Your task to perform on an android device: add a contact in the contacts app Image 0: 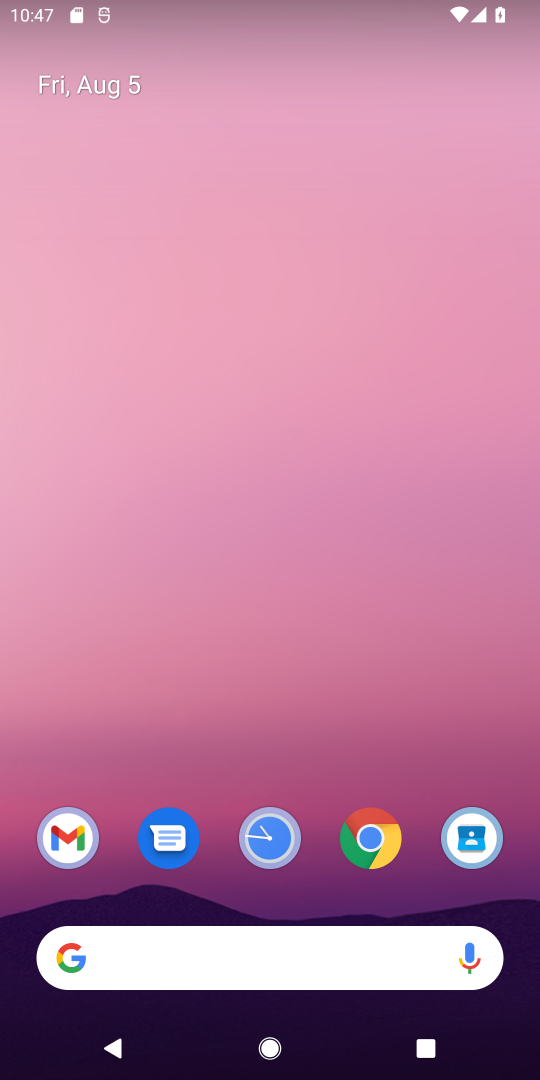
Step 0: drag from (232, 792) to (267, 208)
Your task to perform on an android device: add a contact in the contacts app Image 1: 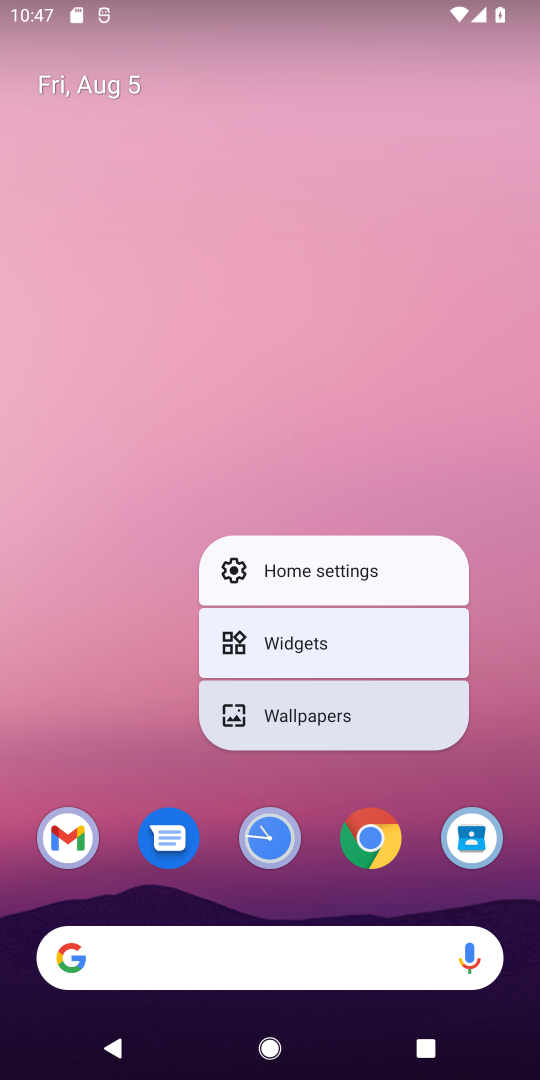
Step 1: click (70, 673)
Your task to perform on an android device: add a contact in the contacts app Image 2: 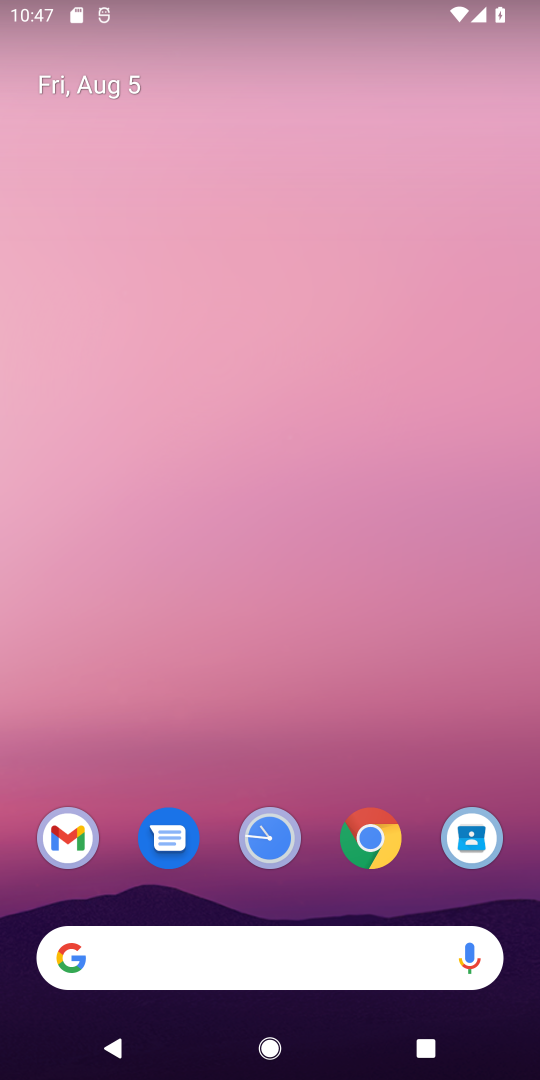
Step 2: drag from (120, 777) to (290, 222)
Your task to perform on an android device: add a contact in the contacts app Image 3: 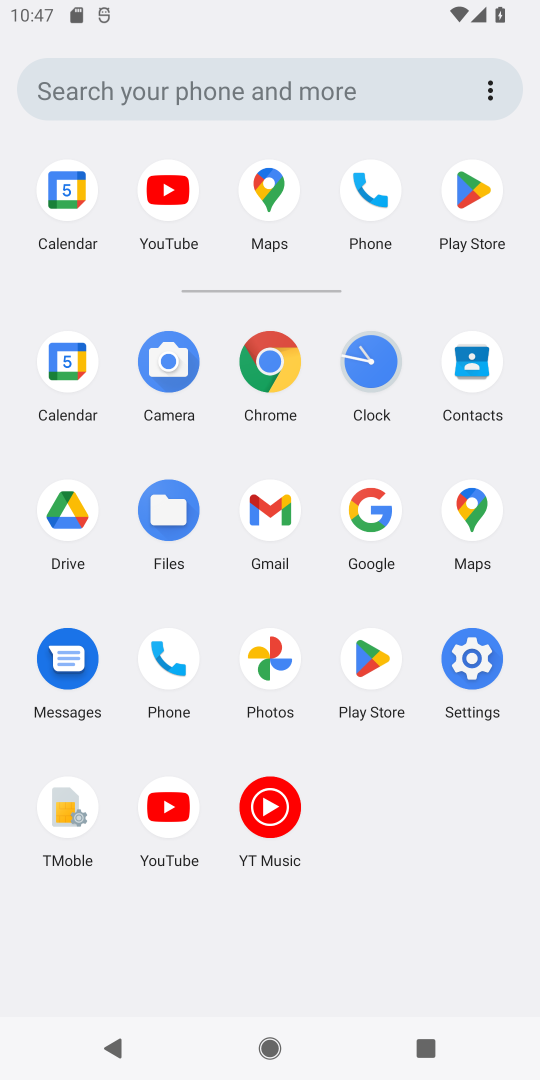
Step 3: click (382, 178)
Your task to perform on an android device: add a contact in the contacts app Image 4: 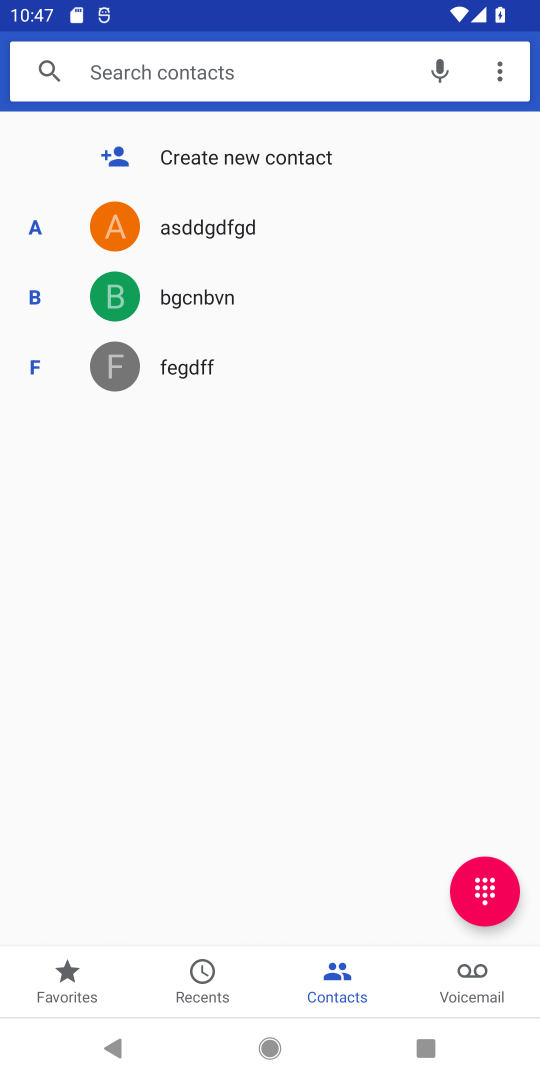
Step 4: click (288, 157)
Your task to perform on an android device: add a contact in the contacts app Image 5: 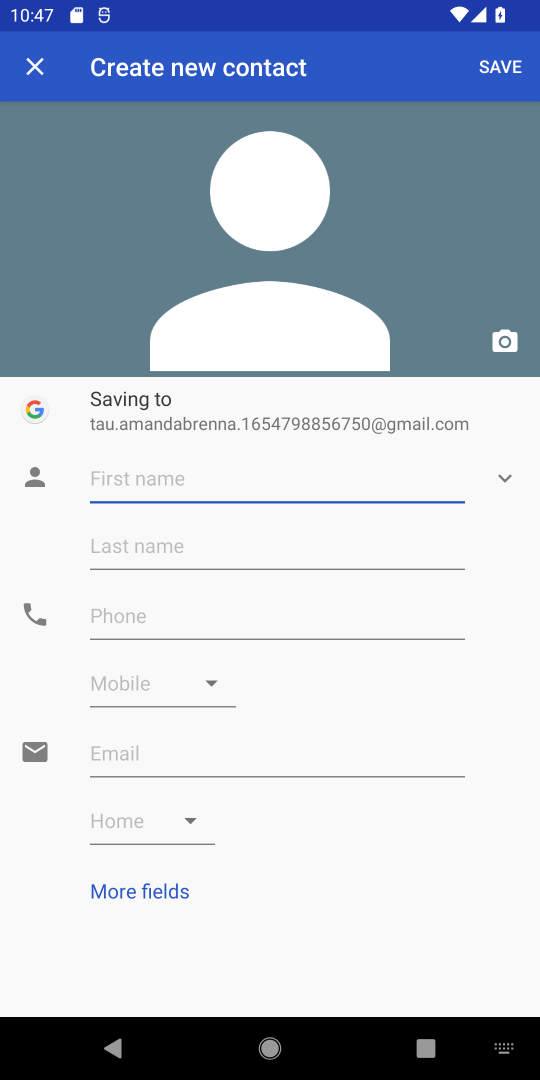
Step 5: type "ngc"
Your task to perform on an android device: add a contact in the contacts app Image 6: 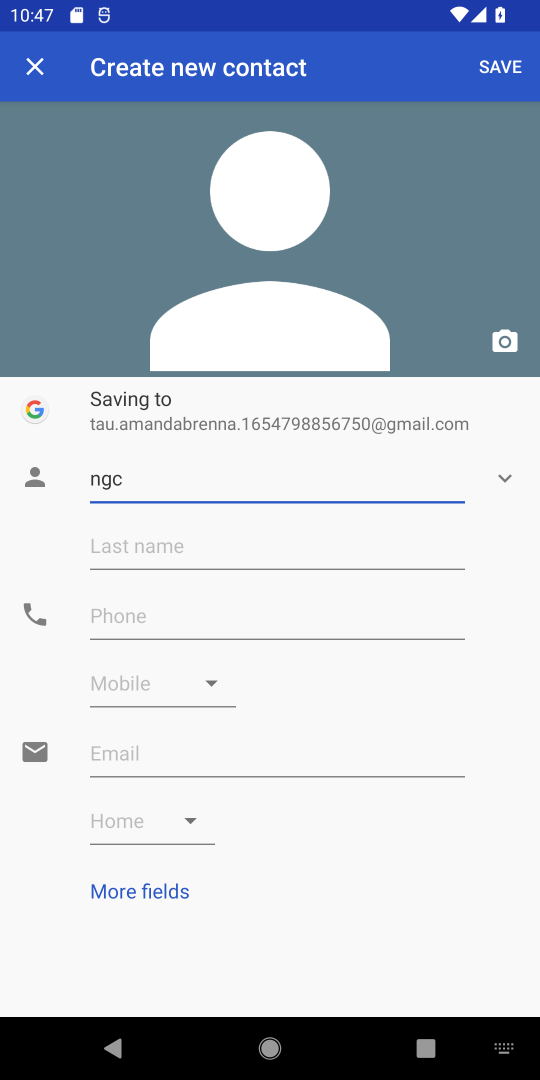
Step 6: click (325, 618)
Your task to perform on an android device: add a contact in the contacts app Image 7: 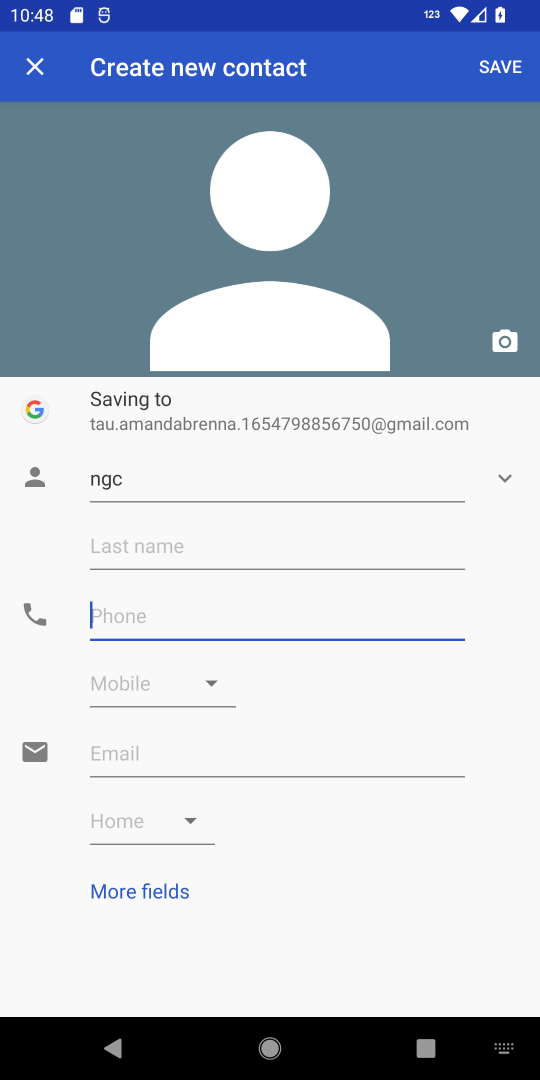
Step 7: type "vv657657"
Your task to perform on an android device: add a contact in the contacts app Image 8: 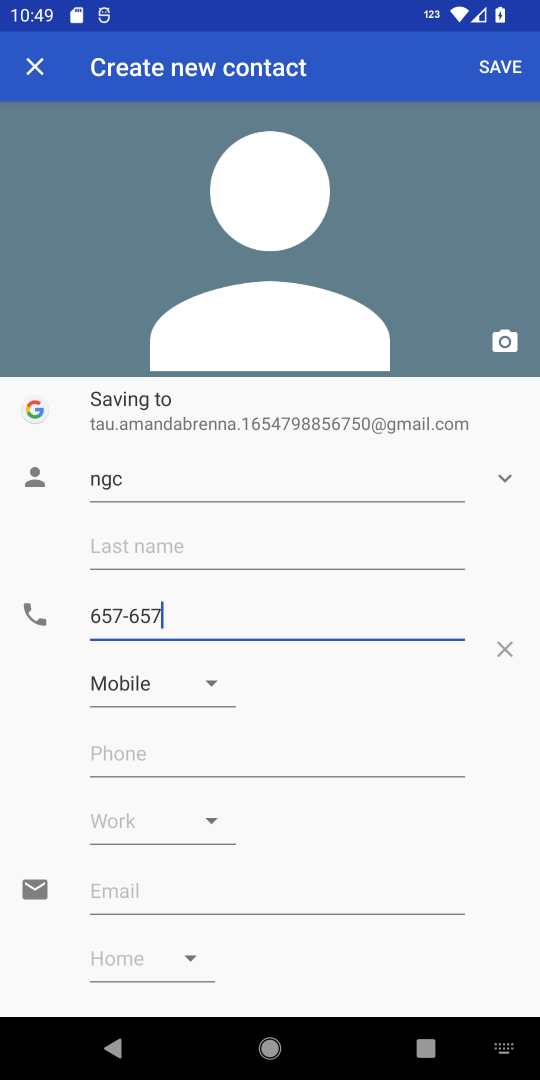
Step 8: click (499, 75)
Your task to perform on an android device: add a contact in the contacts app Image 9: 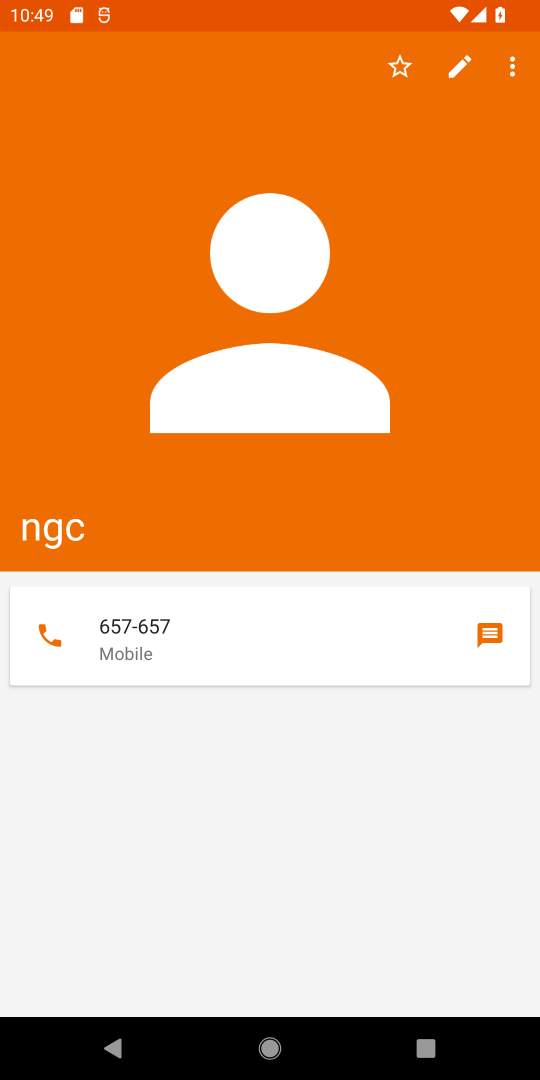
Step 9: task complete